Your task to perform on an android device: make emails show in primary in the gmail app Image 0: 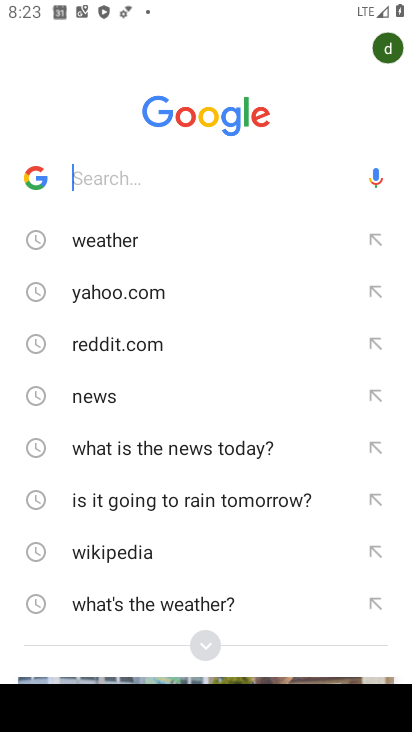
Step 0: press home button
Your task to perform on an android device: make emails show in primary in the gmail app Image 1: 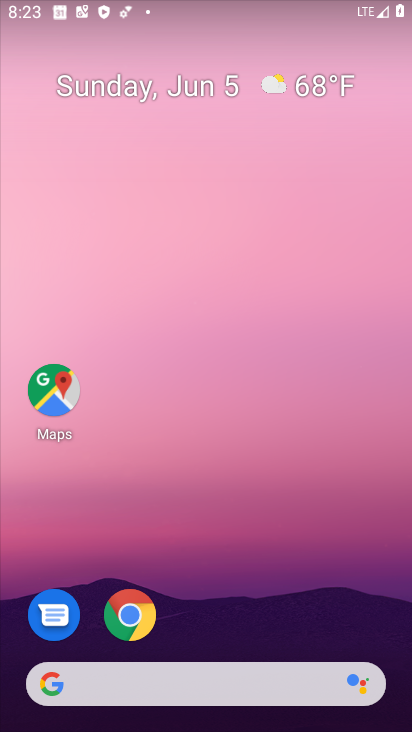
Step 1: drag from (206, 680) to (240, 303)
Your task to perform on an android device: make emails show in primary in the gmail app Image 2: 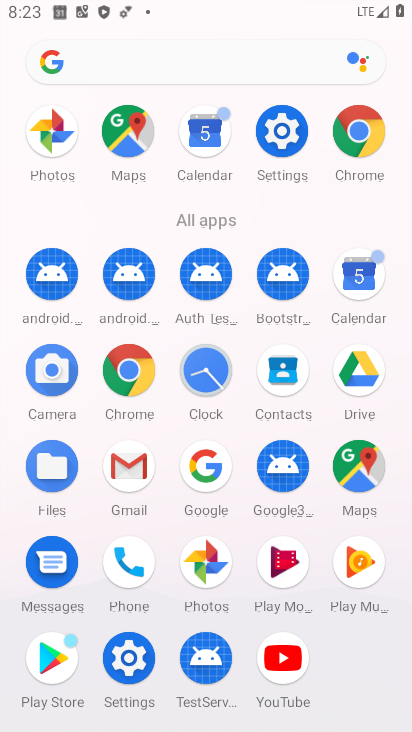
Step 2: click (120, 475)
Your task to perform on an android device: make emails show in primary in the gmail app Image 3: 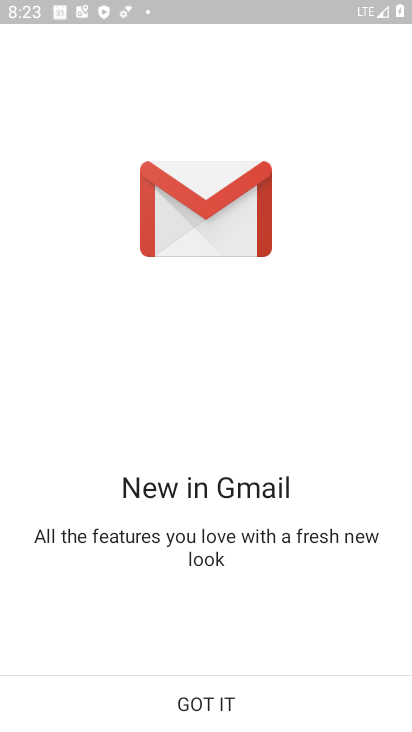
Step 3: click (207, 692)
Your task to perform on an android device: make emails show in primary in the gmail app Image 4: 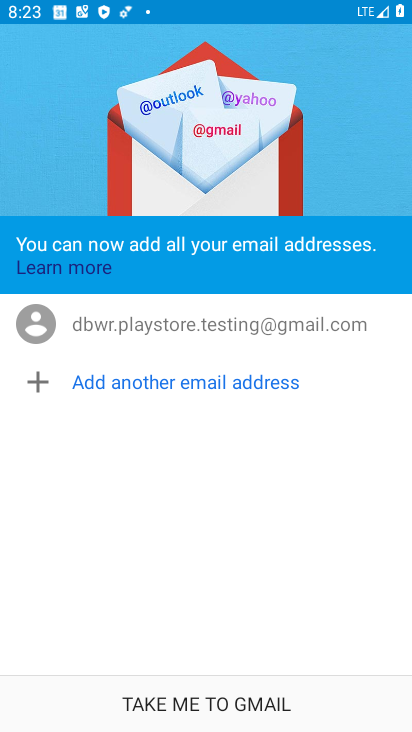
Step 4: click (207, 692)
Your task to perform on an android device: make emails show in primary in the gmail app Image 5: 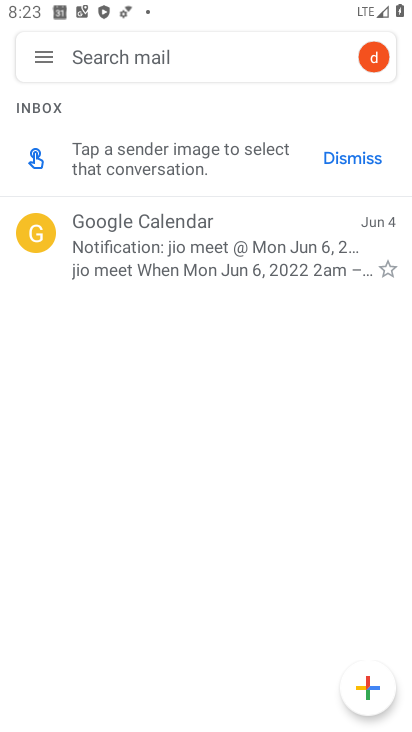
Step 5: click (39, 68)
Your task to perform on an android device: make emails show in primary in the gmail app Image 6: 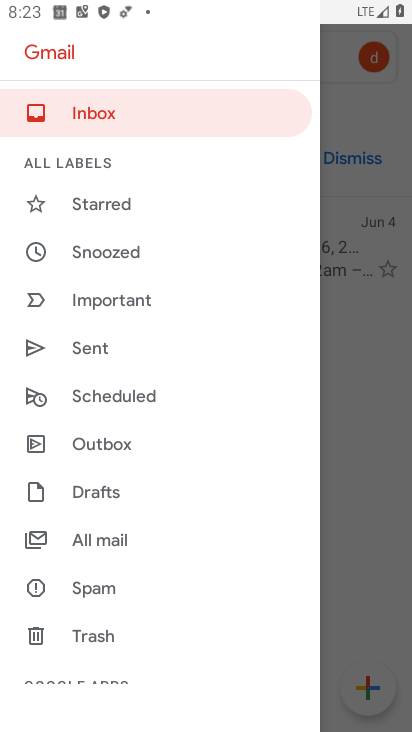
Step 6: drag from (89, 640) to (93, 222)
Your task to perform on an android device: make emails show in primary in the gmail app Image 7: 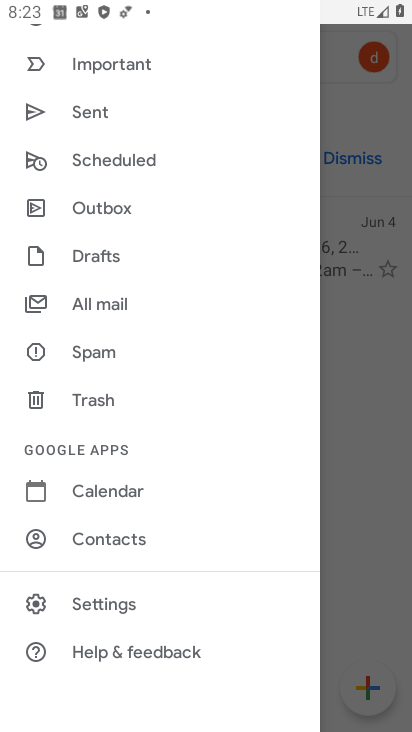
Step 7: click (94, 609)
Your task to perform on an android device: make emails show in primary in the gmail app Image 8: 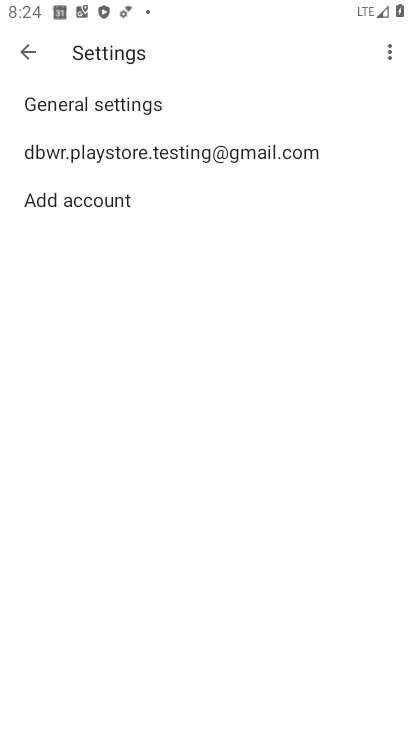
Step 8: click (149, 145)
Your task to perform on an android device: make emails show in primary in the gmail app Image 9: 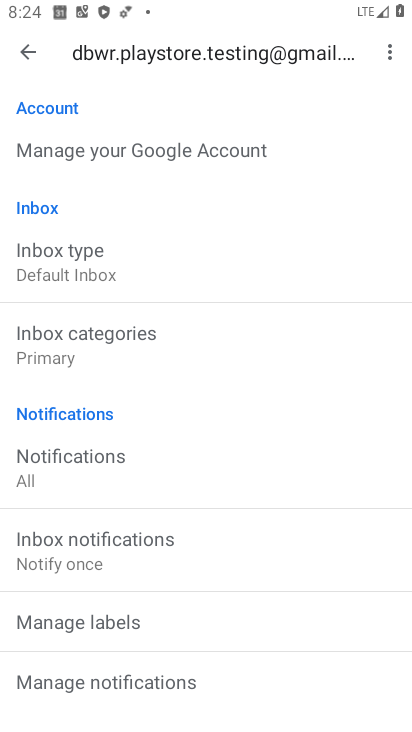
Step 9: click (101, 346)
Your task to perform on an android device: make emails show in primary in the gmail app Image 10: 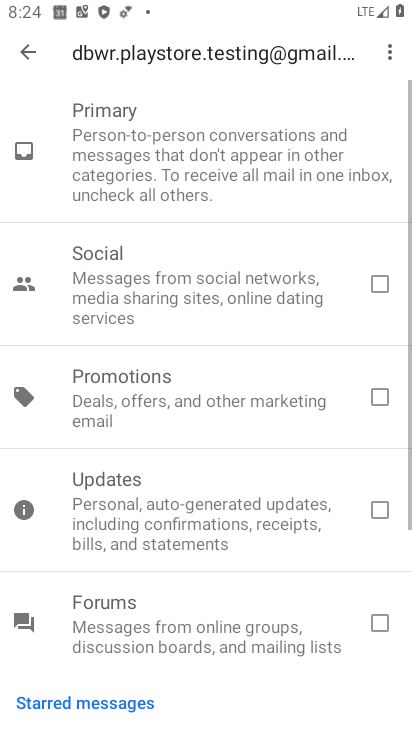
Step 10: click (138, 169)
Your task to perform on an android device: make emails show in primary in the gmail app Image 11: 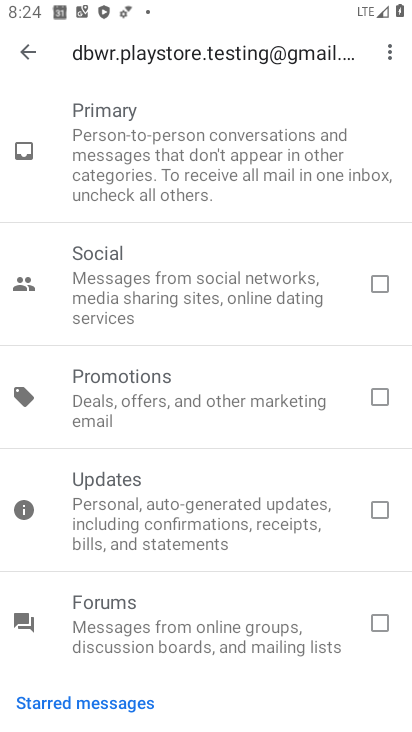
Step 11: task complete